Your task to perform on an android device: Check the news Image 0: 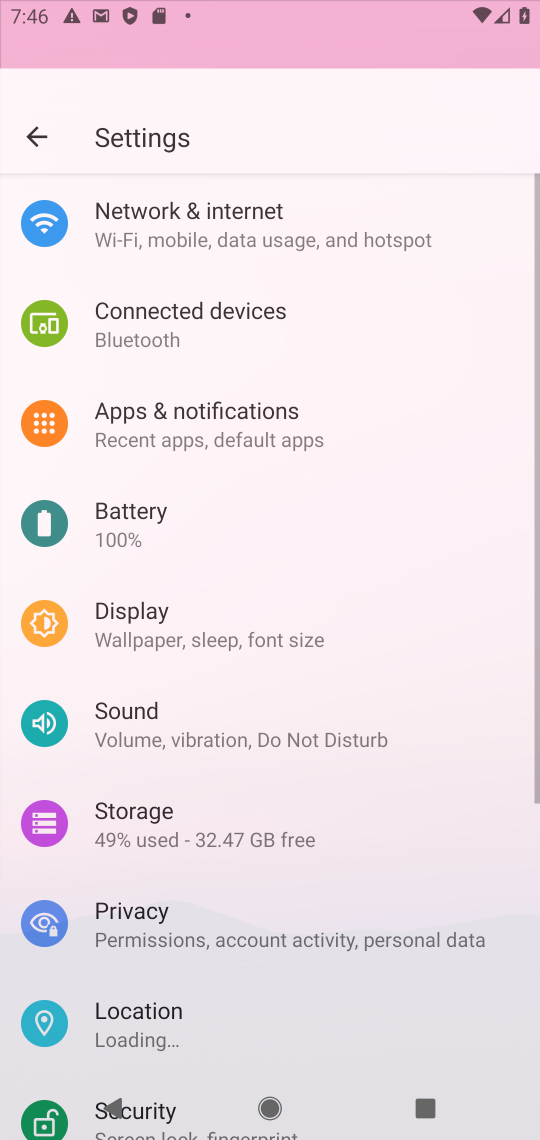
Step 0: press home button
Your task to perform on an android device: Check the news Image 1: 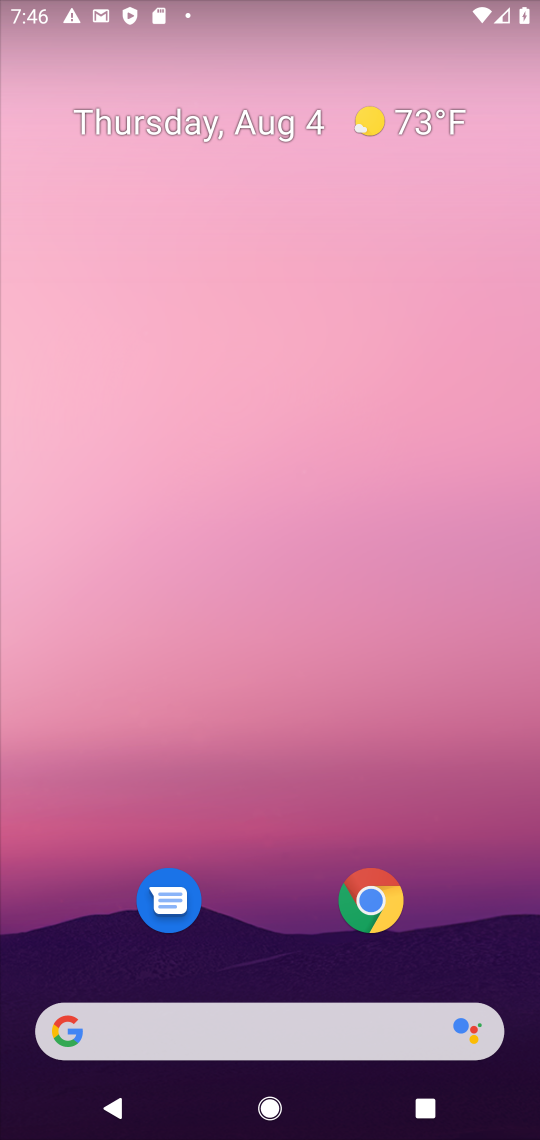
Step 1: click (175, 1027)
Your task to perform on an android device: Check the news Image 2: 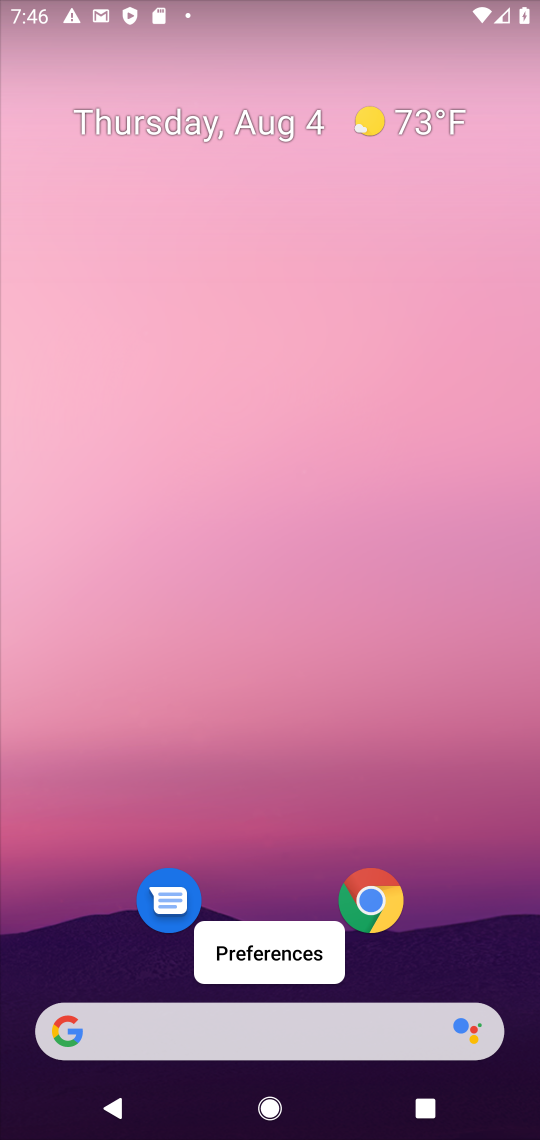
Step 2: click (163, 1034)
Your task to perform on an android device: Check the news Image 3: 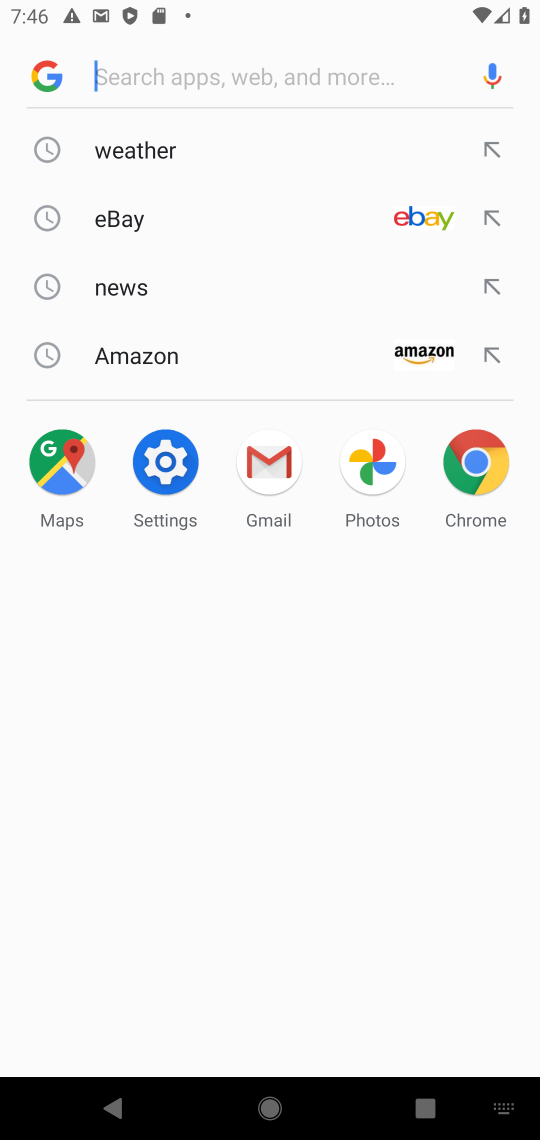
Step 3: click (114, 279)
Your task to perform on an android device: Check the news Image 4: 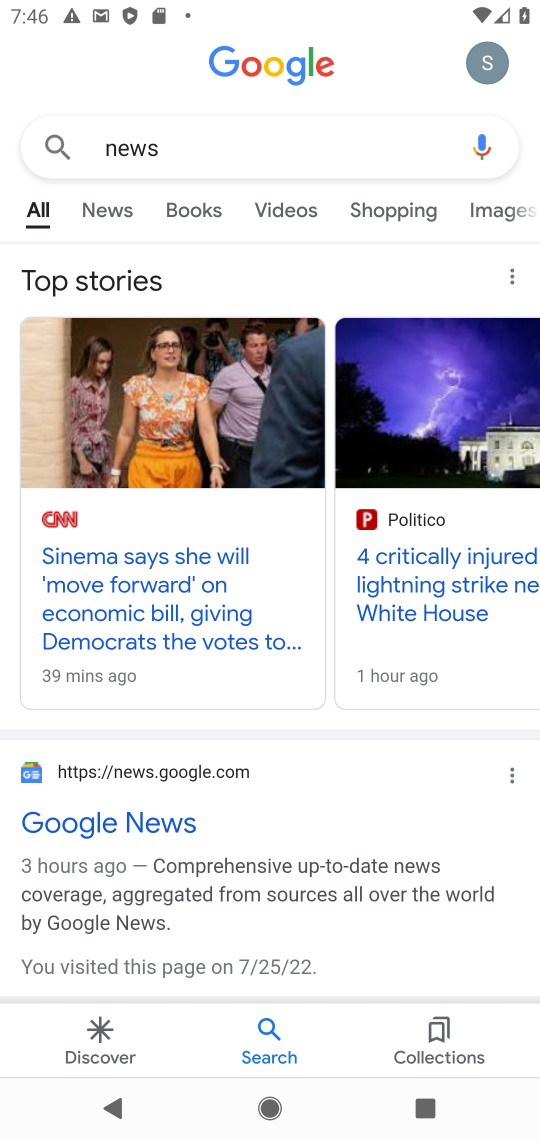
Step 4: click (110, 219)
Your task to perform on an android device: Check the news Image 5: 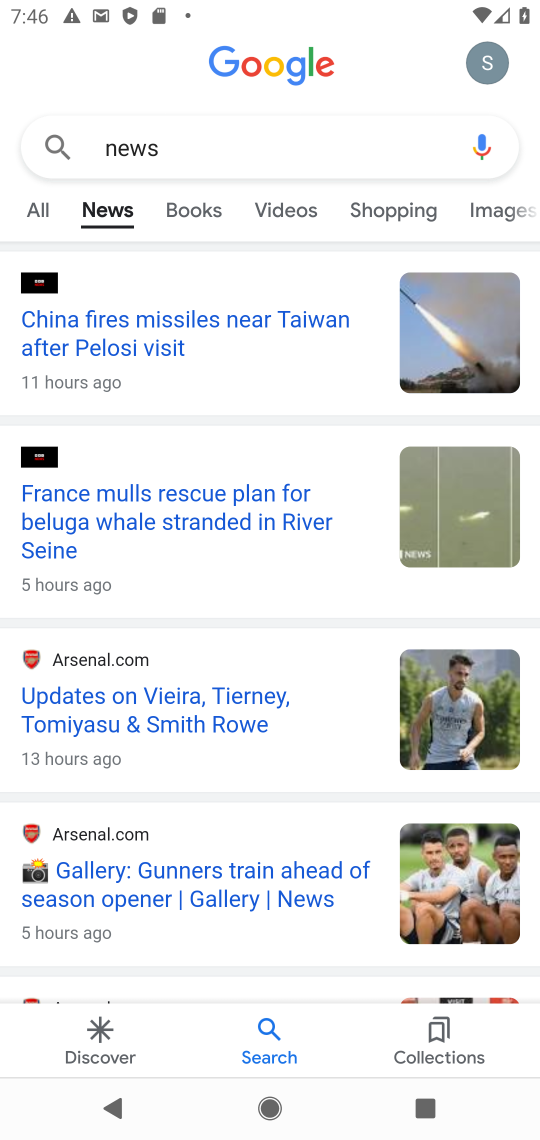
Step 5: task complete